Your task to perform on an android device: What's on my calendar tomorrow? Image 0: 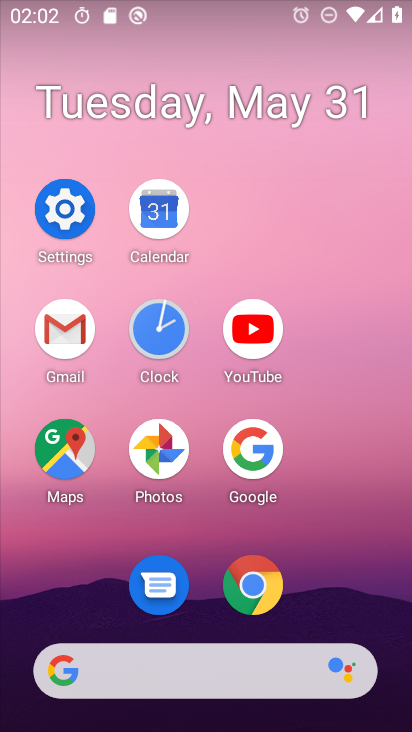
Step 0: click (173, 207)
Your task to perform on an android device: What's on my calendar tomorrow? Image 1: 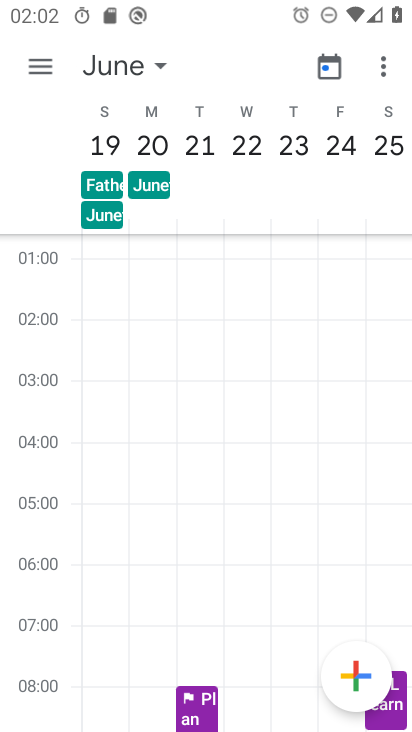
Step 1: task complete